Your task to perform on an android device: snooze an email in the gmail app Image 0: 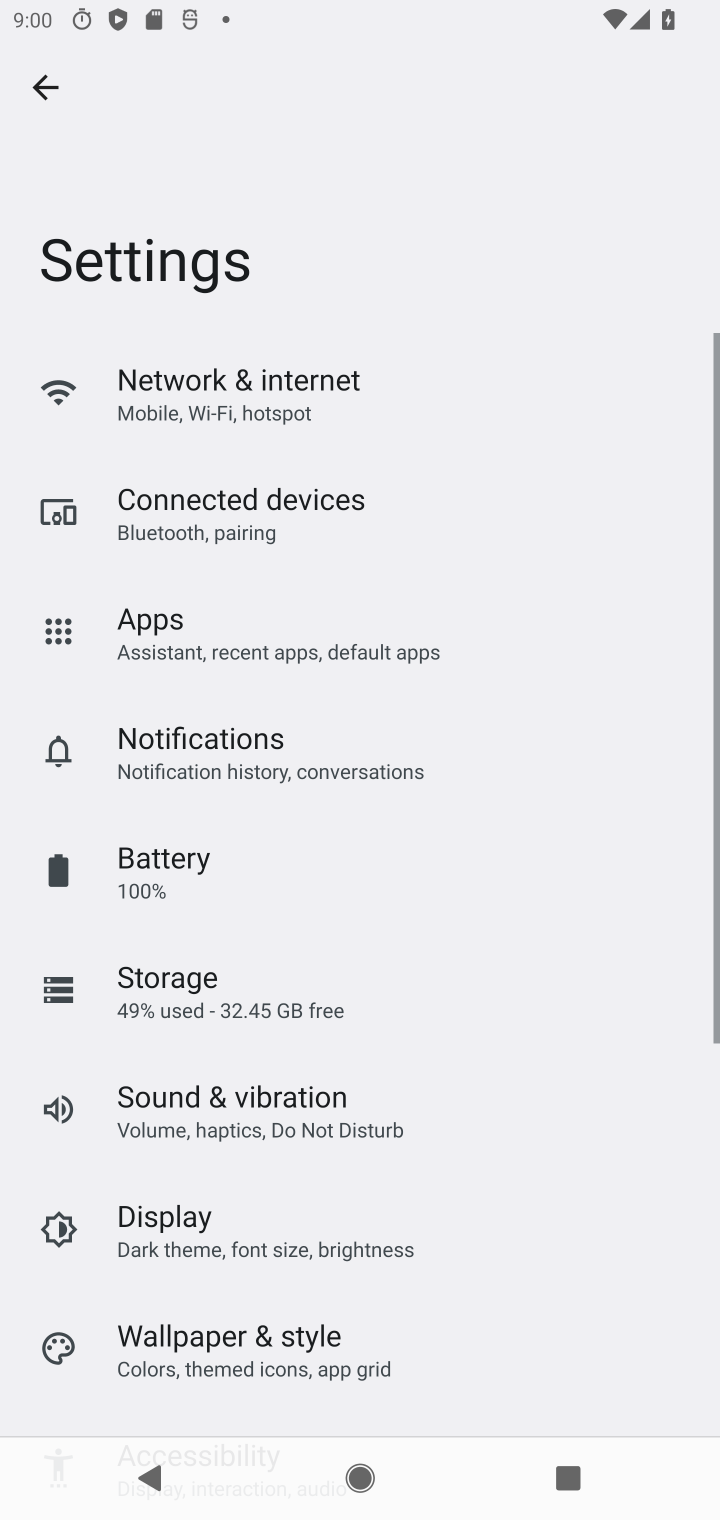
Step 0: press home button
Your task to perform on an android device: snooze an email in the gmail app Image 1: 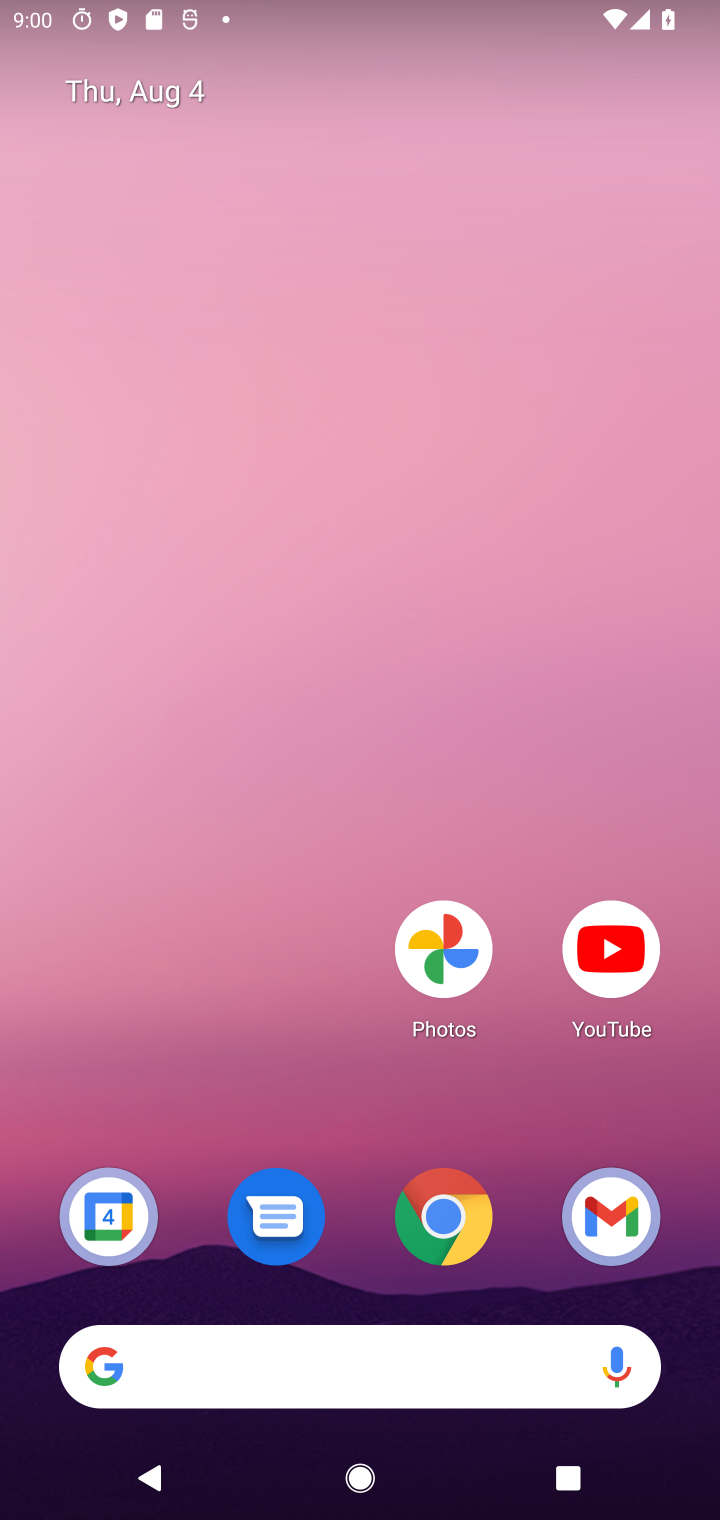
Step 1: task complete